Your task to perform on an android device: Add "razer blackwidow" to the cart on target Image 0: 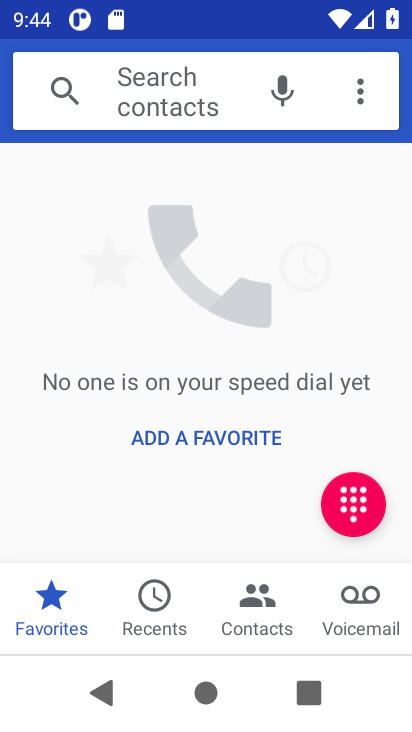
Step 0: press home button
Your task to perform on an android device: Add "razer blackwidow" to the cart on target Image 1: 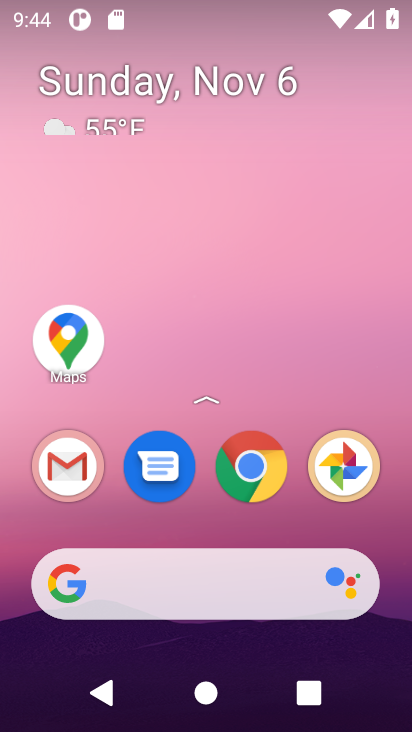
Step 1: click (253, 468)
Your task to perform on an android device: Add "razer blackwidow" to the cart on target Image 2: 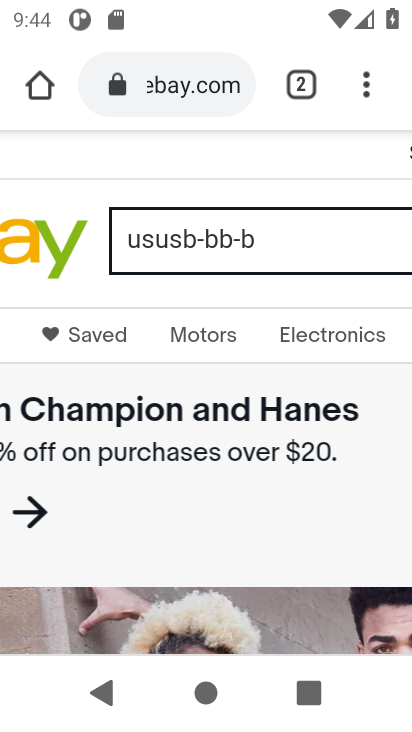
Step 2: click (301, 85)
Your task to perform on an android device: Add "razer blackwidow" to the cart on target Image 3: 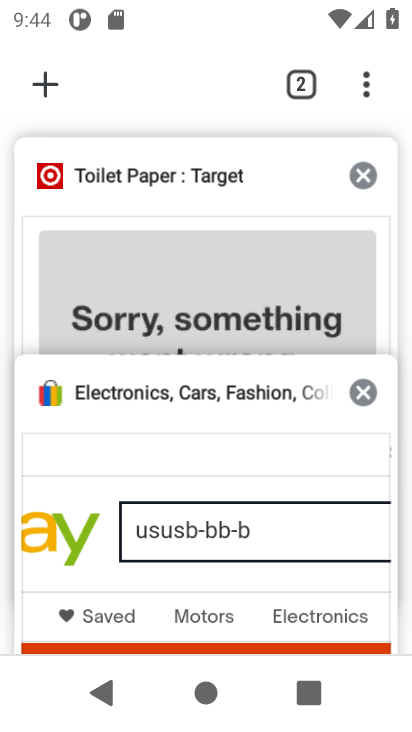
Step 3: click (118, 216)
Your task to perform on an android device: Add "razer blackwidow" to the cart on target Image 4: 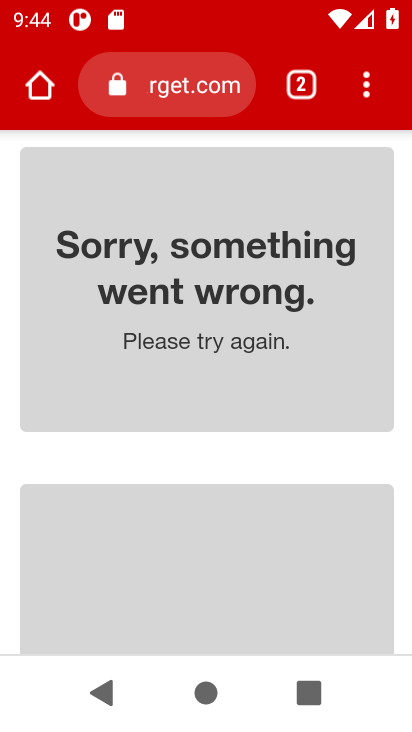
Step 4: drag from (263, 228) to (203, 724)
Your task to perform on an android device: Add "razer blackwidow" to the cart on target Image 5: 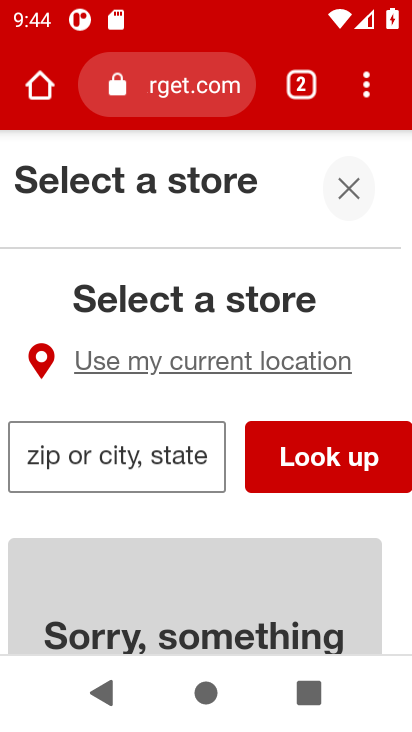
Step 5: click (336, 192)
Your task to perform on an android device: Add "razer blackwidow" to the cart on target Image 6: 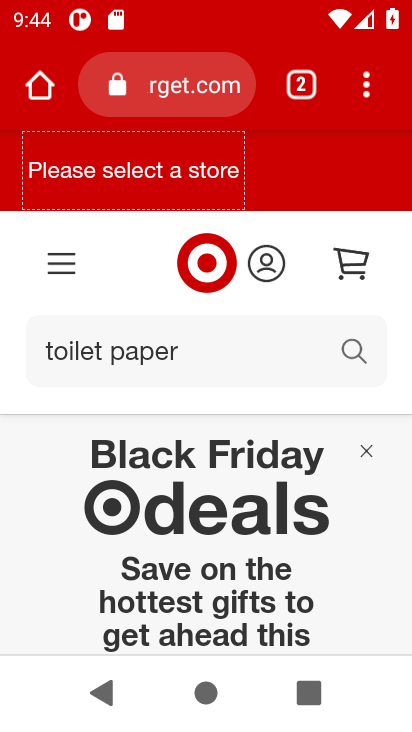
Step 6: click (345, 372)
Your task to perform on an android device: Add "razer blackwidow" to the cart on target Image 7: 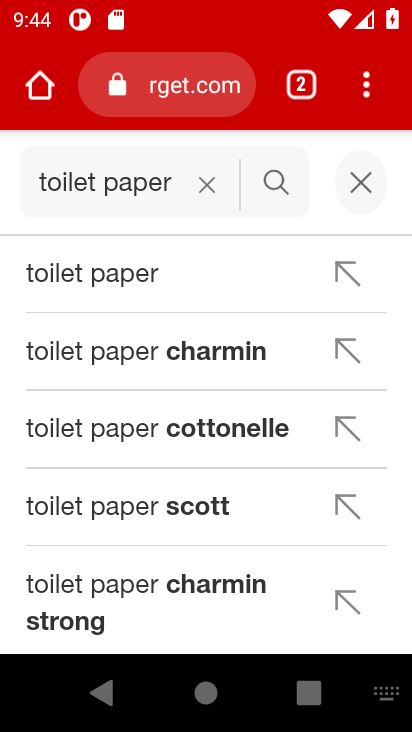
Step 7: click (355, 194)
Your task to perform on an android device: Add "razer blackwidow" to the cart on target Image 8: 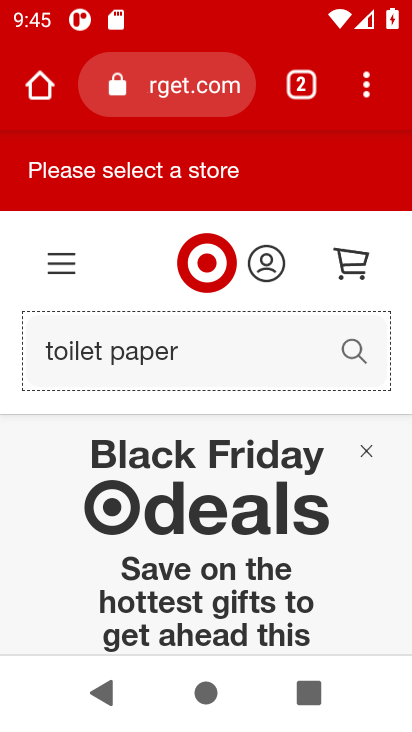
Step 8: click (239, 369)
Your task to perform on an android device: Add "razer blackwidow" to the cart on target Image 9: 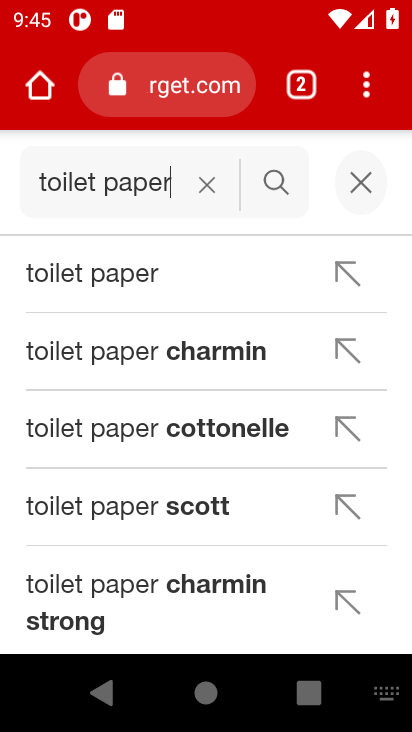
Step 9: click (206, 186)
Your task to perform on an android device: Add "razer blackwidow" to the cart on target Image 10: 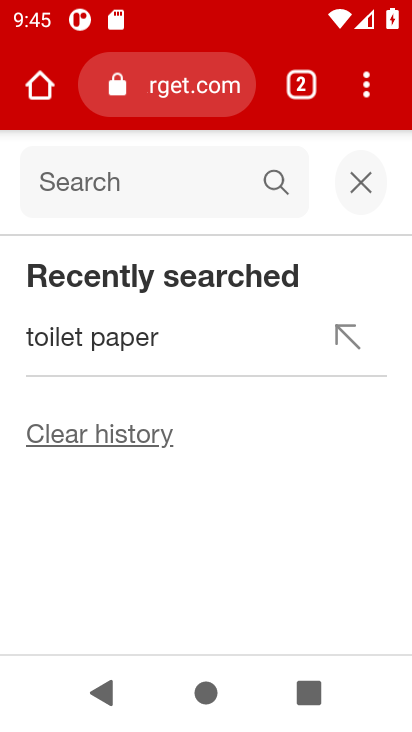
Step 10: click (89, 193)
Your task to perform on an android device: Add "razer blackwidow" to the cart on target Image 11: 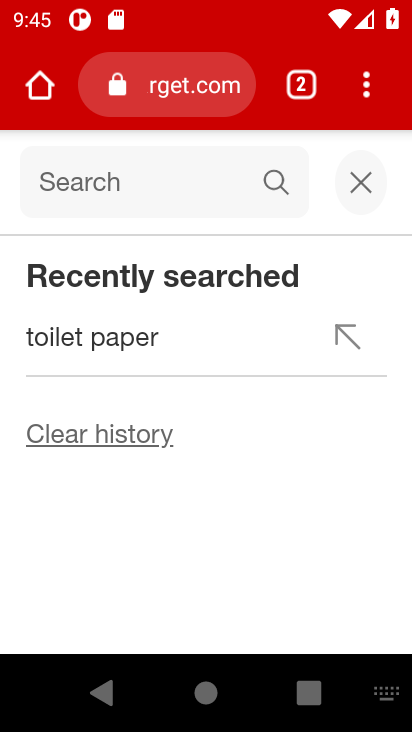
Step 11: type "razer blackwidow"
Your task to perform on an android device: Add "razer blackwidow" to the cart on target Image 12: 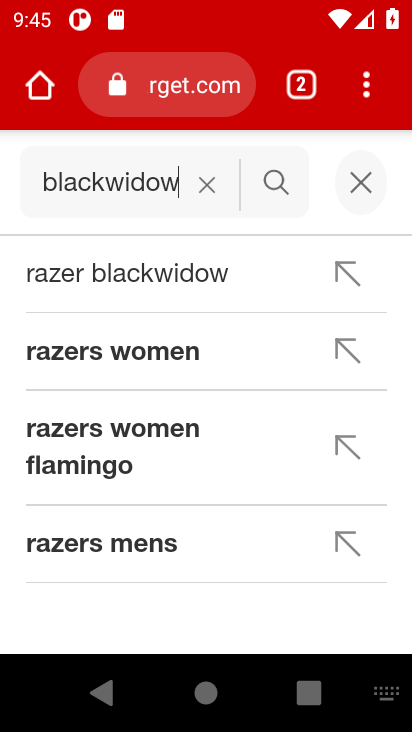
Step 12: click (125, 272)
Your task to perform on an android device: Add "razer blackwidow" to the cart on target Image 13: 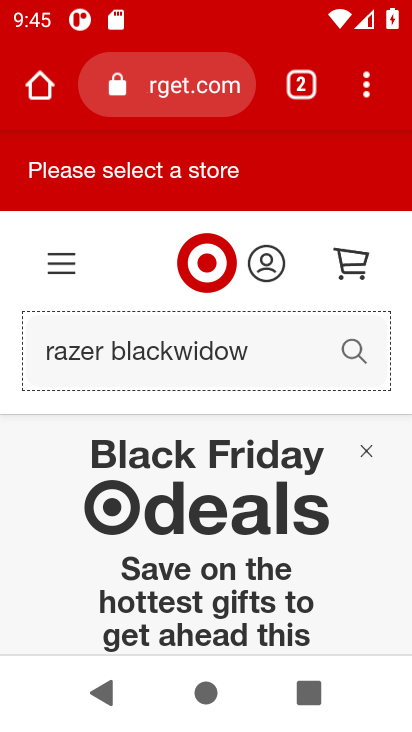
Step 13: task complete